Your task to perform on an android device: Open location settings Image 0: 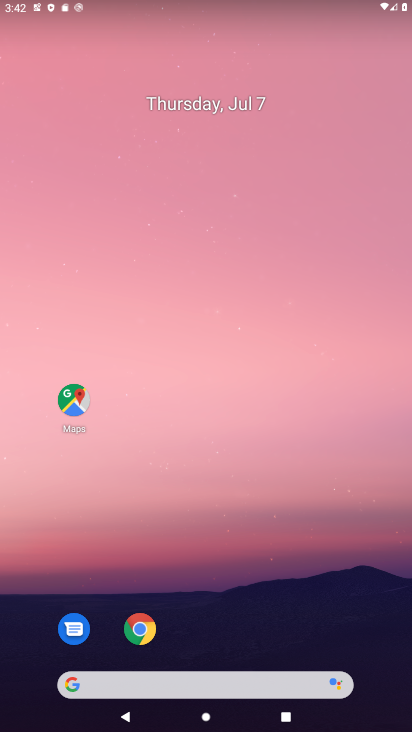
Step 0: drag from (286, 621) to (236, 256)
Your task to perform on an android device: Open location settings Image 1: 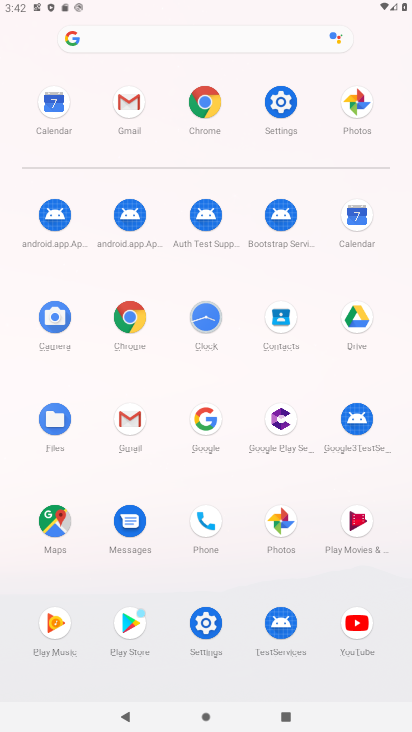
Step 1: click (279, 97)
Your task to perform on an android device: Open location settings Image 2: 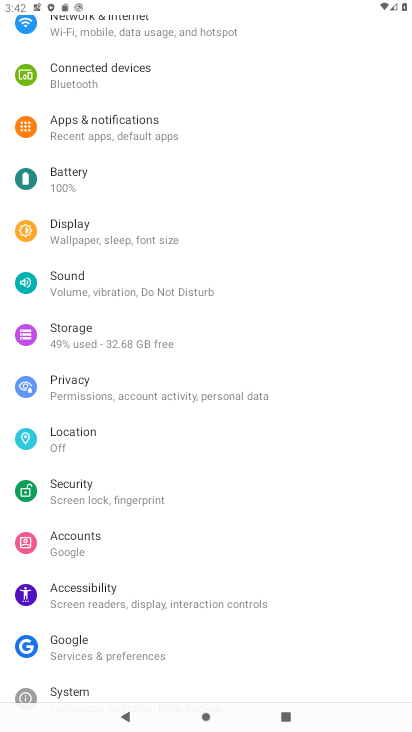
Step 2: click (55, 432)
Your task to perform on an android device: Open location settings Image 3: 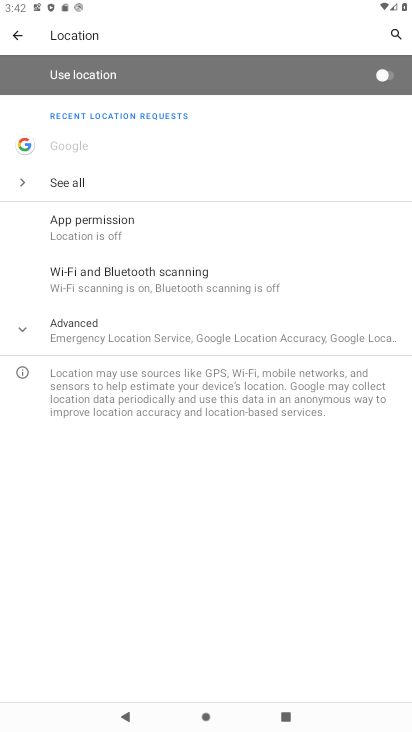
Step 3: task complete